Your task to perform on an android device: What is the news today? Image 0: 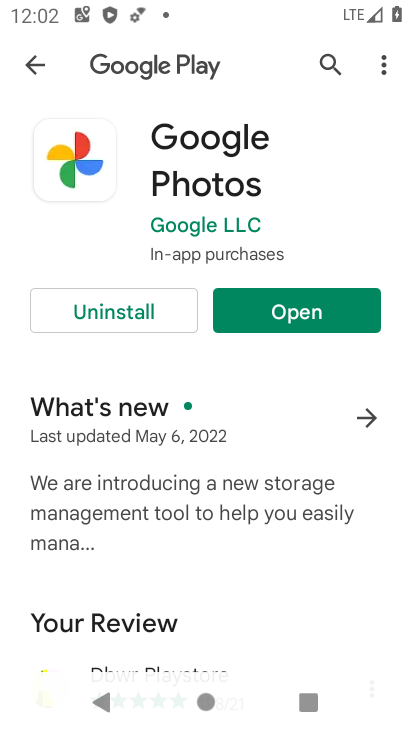
Step 0: press home button
Your task to perform on an android device: What is the news today? Image 1: 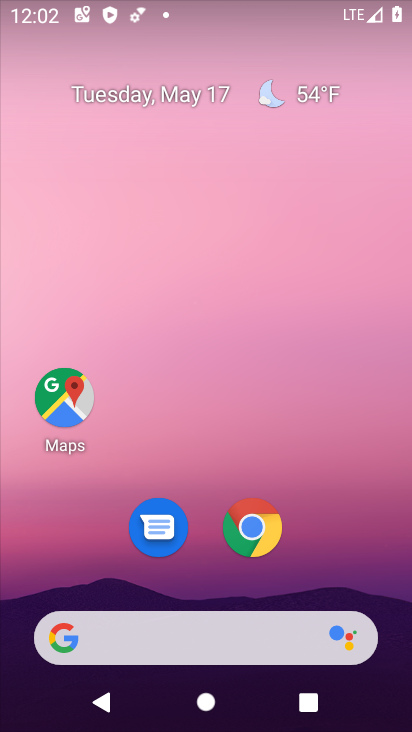
Step 1: drag from (261, 661) to (121, 278)
Your task to perform on an android device: What is the news today? Image 2: 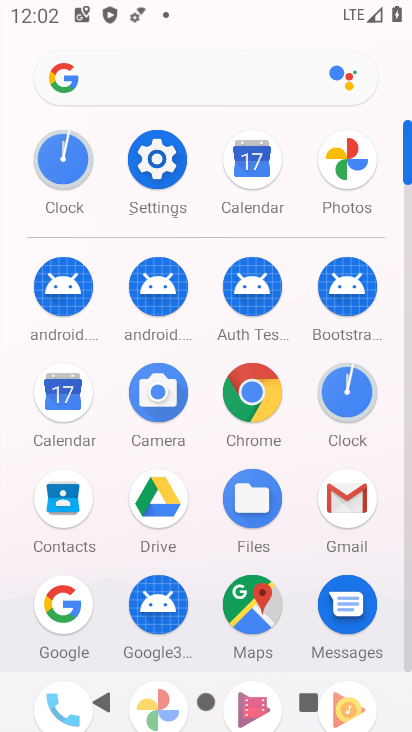
Step 2: click (153, 86)
Your task to perform on an android device: What is the news today? Image 3: 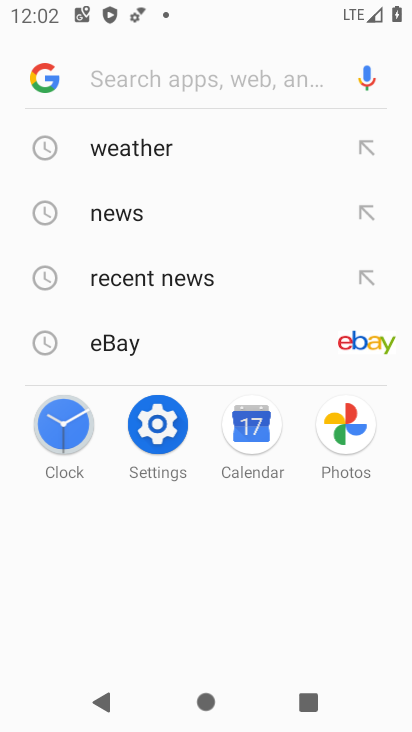
Step 3: click (161, 203)
Your task to perform on an android device: What is the news today? Image 4: 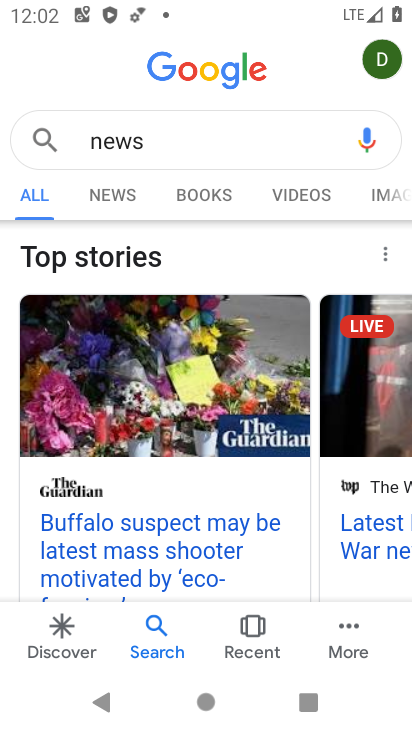
Step 4: task complete